Your task to perform on an android device: Go to internet settings Image 0: 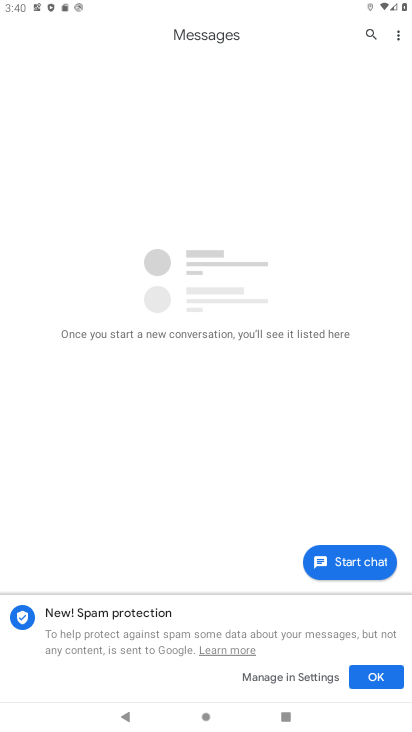
Step 0: drag from (326, 710) to (297, 318)
Your task to perform on an android device: Go to internet settings Image 1: 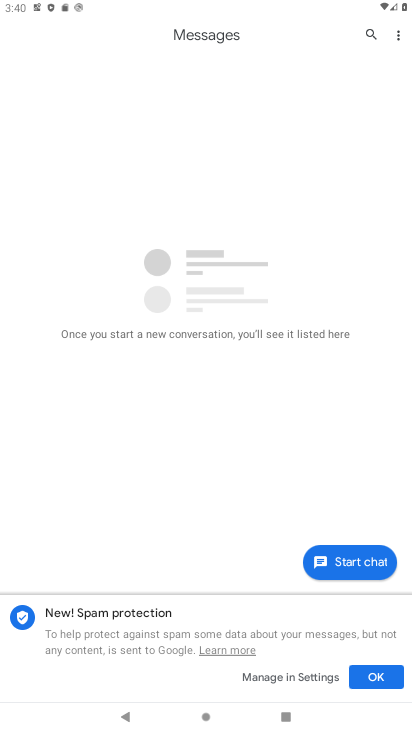
Step 1: press back button
Your task to perform on an android device: Go to internet settings Image 2: 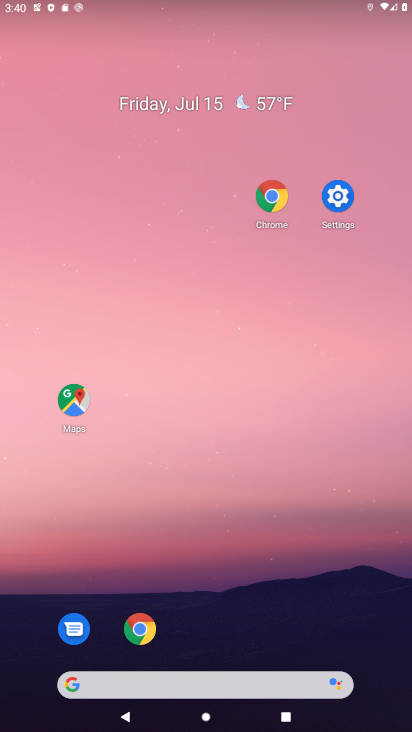
Step 2: drag from (213, 721) to (214, 288)
Your task to perform on an android device: Go to internet settings Image 3: 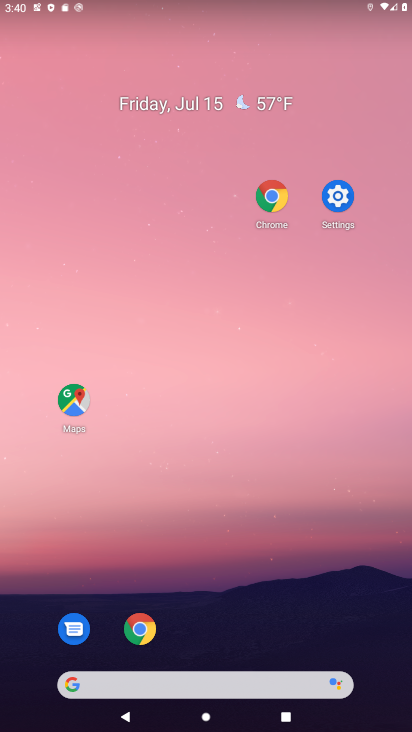
Step 3: click (200, 202)
Your task to perform on an android device: Go to internet settings Image 4: 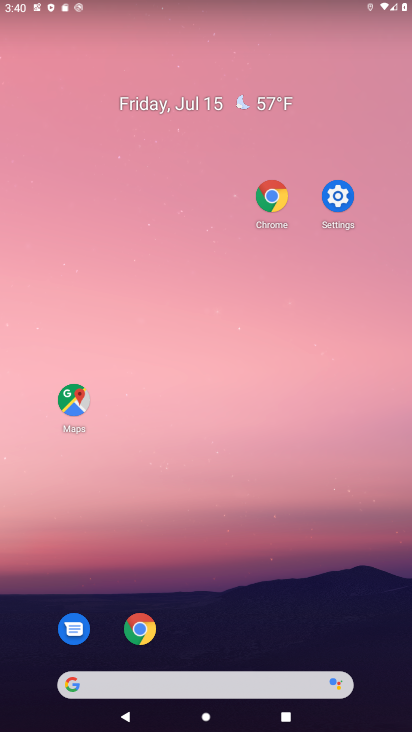
Step 4: drag from (222, 625) to (195, 143)
Your task to perform on an android device: Go to internet settings Image 5: 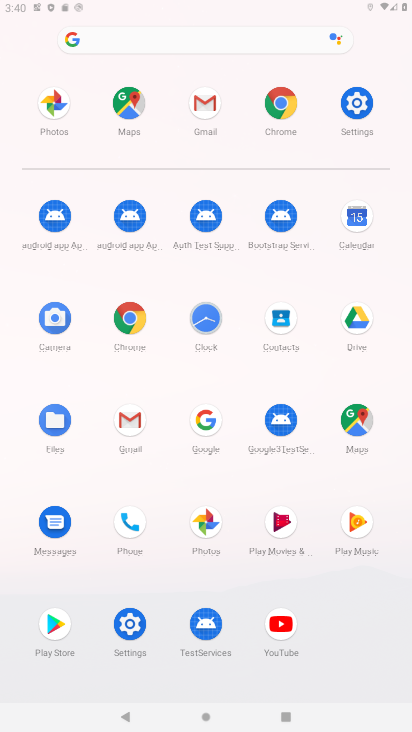
Step 5: drag from (216, 563) to (215, 137)
Your task to perform on an android device: Go to internet settings Image 6: 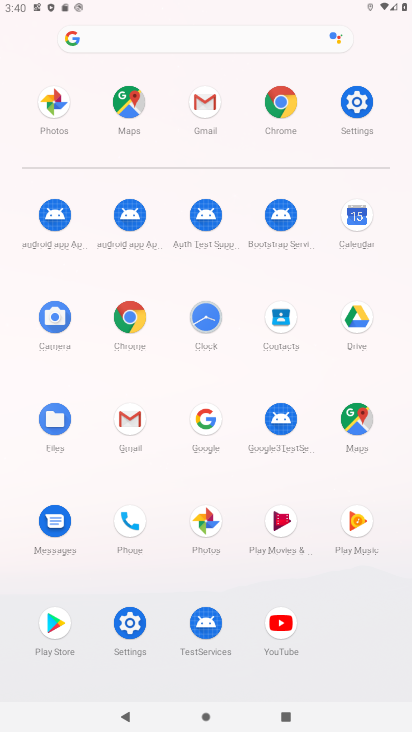
Step 6: click (127, 605)
Your task to perform on an android device: Go to internet settings Image 7: 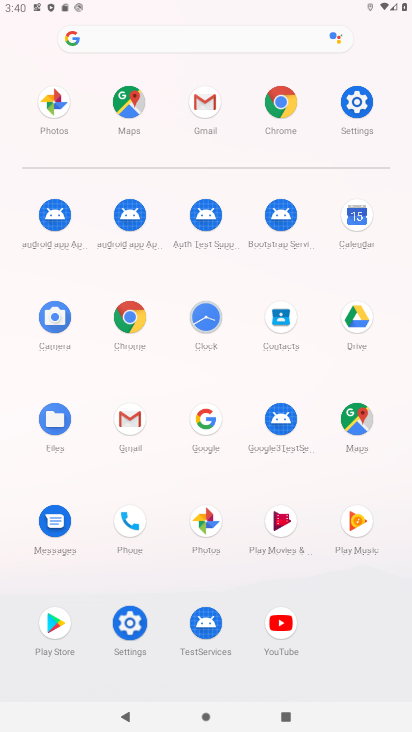
Step 7: click (127, 605)
Your task to perform on an android device: Go to internet settings Image 8: 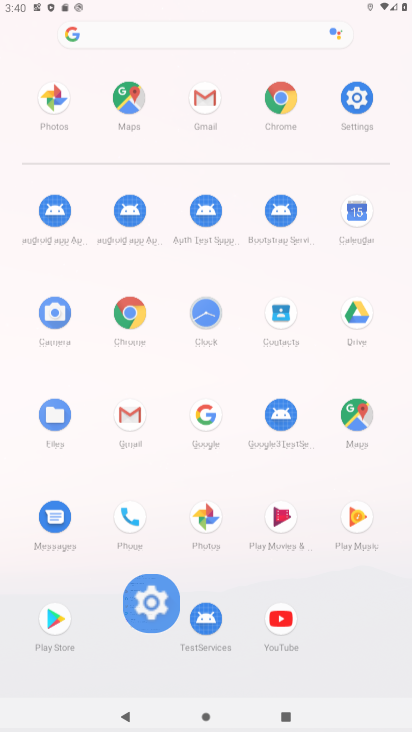
Step 8: click (126, 606)
Your task to perform on an android device: Go to internet settings Image 9: 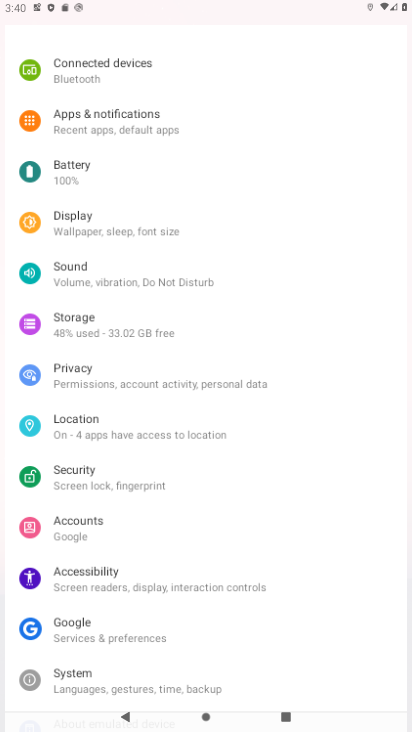
Step 9: click (126, 606)
Your task to perform on an android device: Go to internet settings Image 10: 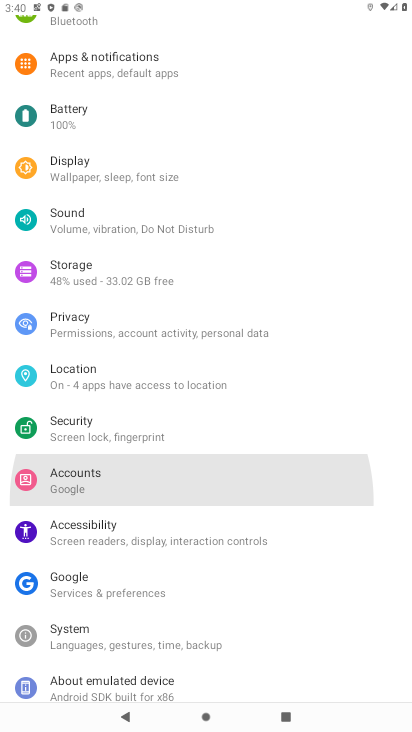
Step 10: click (126, 607)
Your task to perform on an android device: Go to internet settings Image 11: 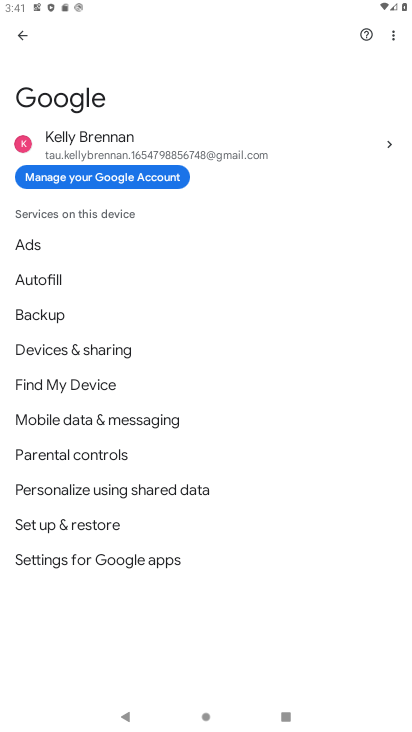
Step 11: press back button
Your task to perform on an android device: Go to internet settings Image 12: 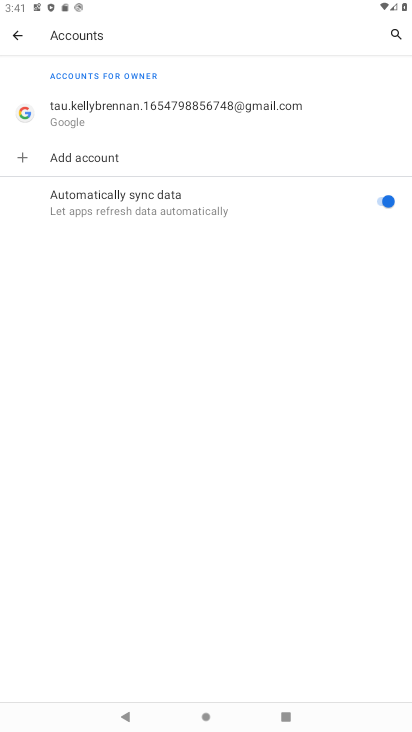
Step 12: click (18, 35)
Your task to perform on an android device: Go to internet settings Image 13: 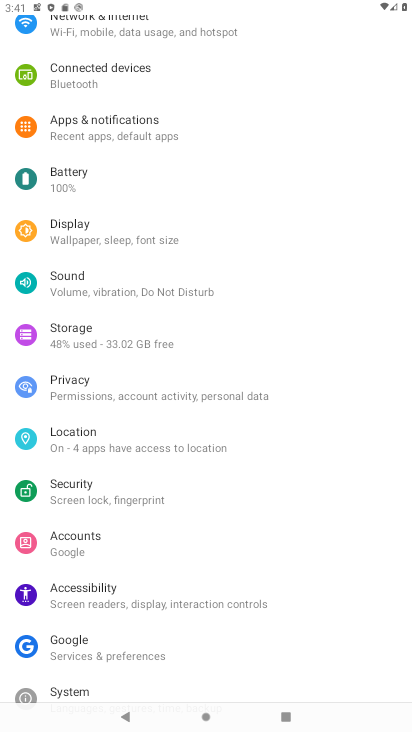
Step 13: drag from (108, 195) to (111, 161)
Your task to perform on an android device: Go to internet settings Image 14: 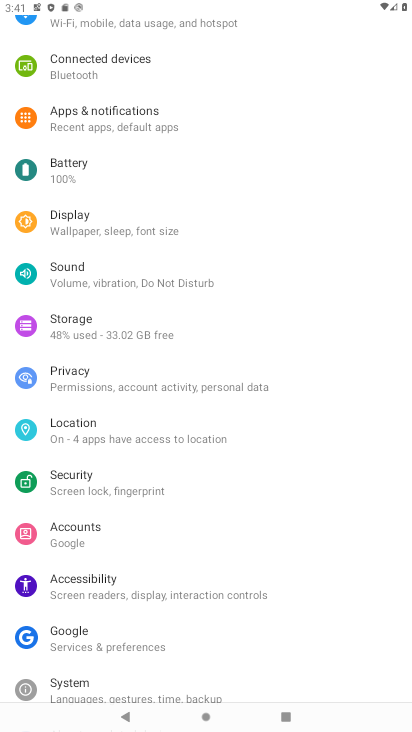
Step 14: drag from (106, 88) to (159, 550)
Your task to perform on an android device: Go to internet settings Image 15: 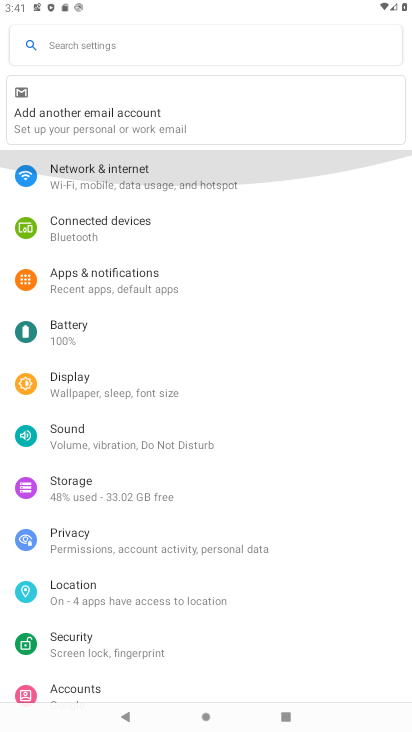
Step 15: drag from (155, 147) to (189, 444)
Your task to perform on an android device: Go to internet settings Image 16: 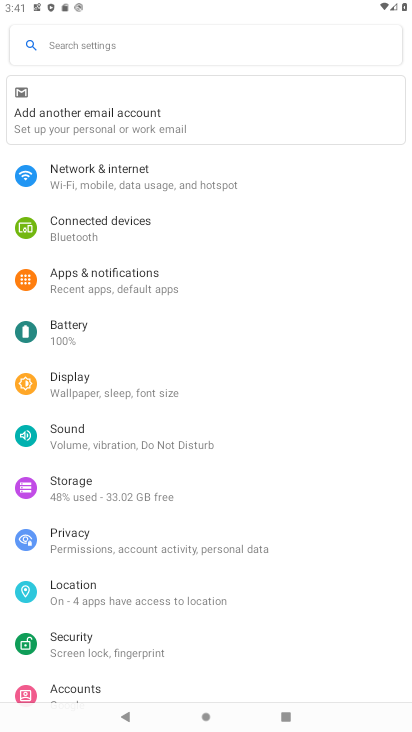
Step 16: click (121, 167)
Your task to perform on an android device: Go to internet settings Image 17: 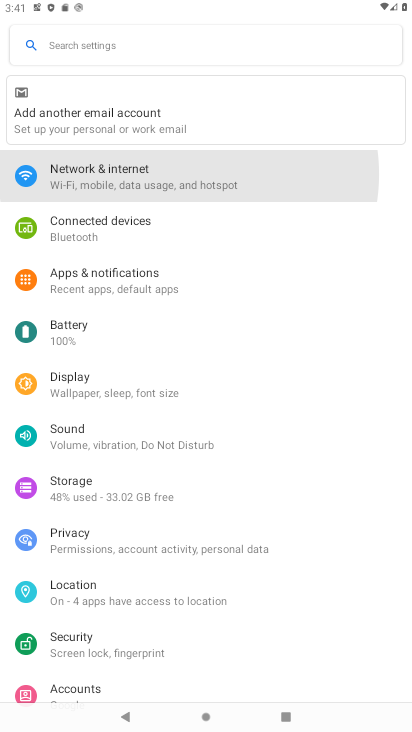
Step 17: click (121, 168)
Your task to perform on an android device: Go to internet settings Image 18: 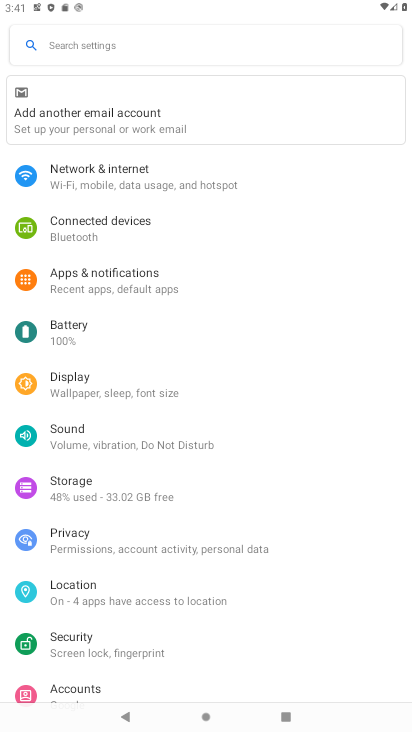
Step 18: click (123, 169)
Your task to perform on an android device: Go to internet settings Image 19: 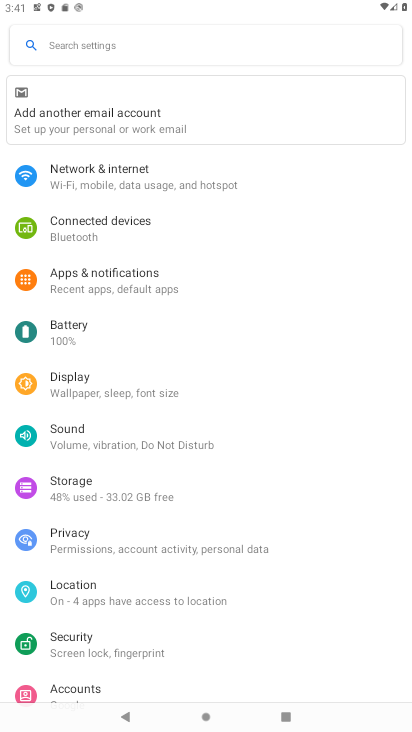
Step 19: click (125, 170)
Your task to perform on an android device: Go to internet settings Image 20: 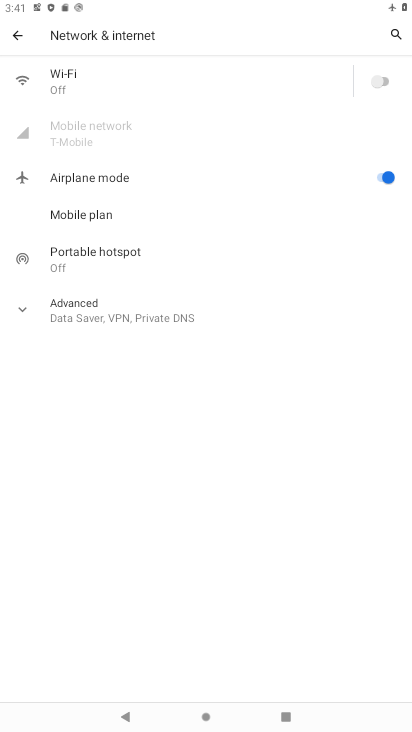
Step 20: click (64, 73)
Your task to perform on an android device: Go to internet settings Image 21: 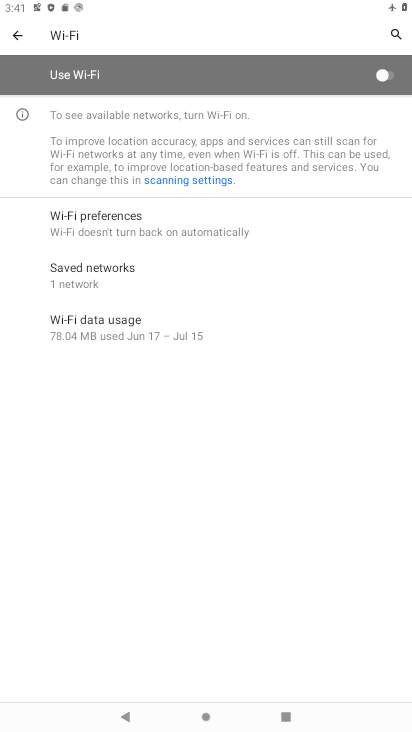
Step 21: click (372, 80)
Your task to perform on an android device: Go to internet settings Image 22: 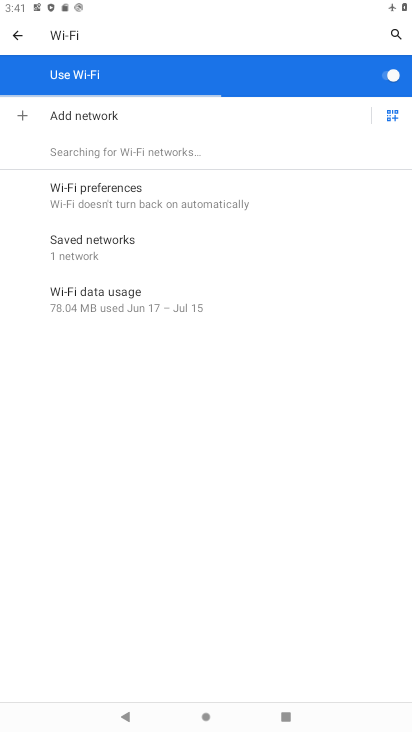
Step 22: task complete